Your task to perform on an android device: turn on bluetooth scan Image 0: 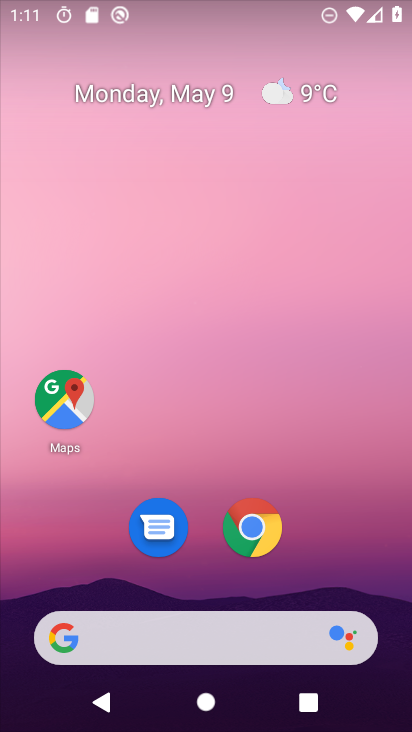
Step 0: drag from (156, 523) to (234, 2)
Your task to perform on an android device: turn on bluetooth scan Image 1: 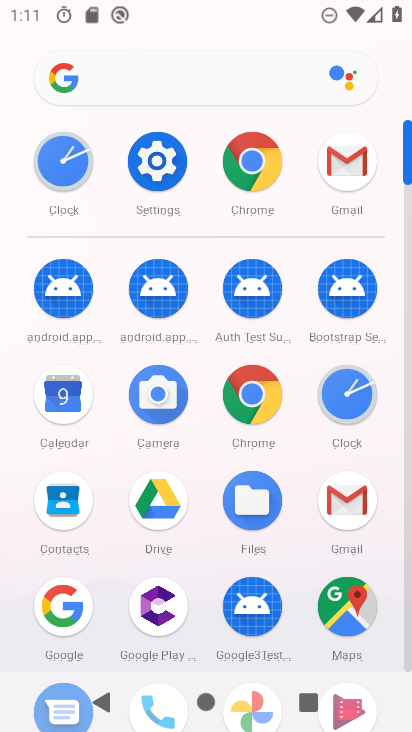
Step 1: click (156, 148)
Your task to perform on an android device: turn on bluetooth scan Image 2: 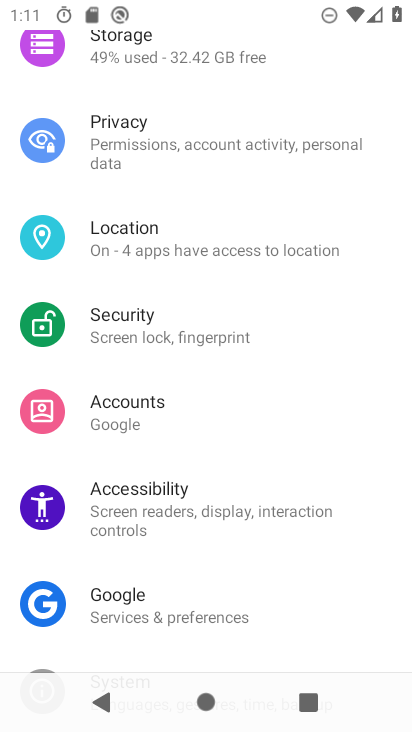
Step 2: drag from (211, 168) to (204, 675)
Your task to perform on an android device: turn on bluetooth scan Image 3: 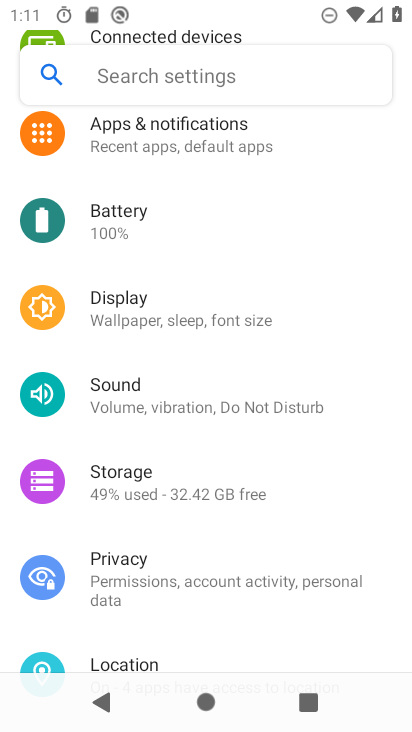
Step 3: drag from (212, 193) to (146, 600)
Your task to perform on an android device: turn on bluetooth scan Image 4: 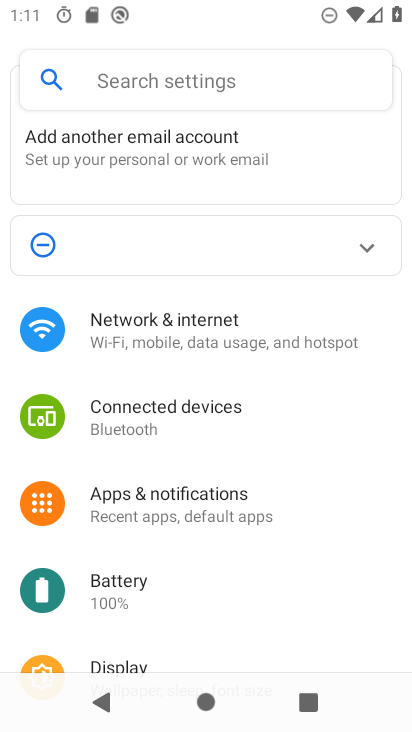
Step 4: drag from (151, 600) to (213, 179)
Your task to perform on an android device: turn on bluetooth scan Image 5: 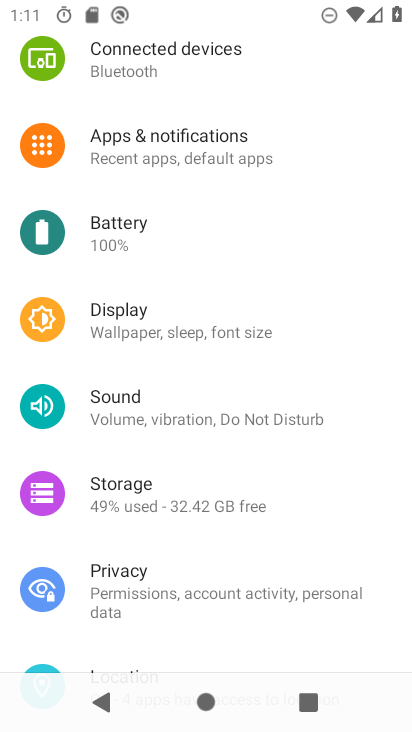
Step 5: drag from (225, 134) to (209, 282)
Your task to perform on an android device: turn on bluetooth scan Image 6: 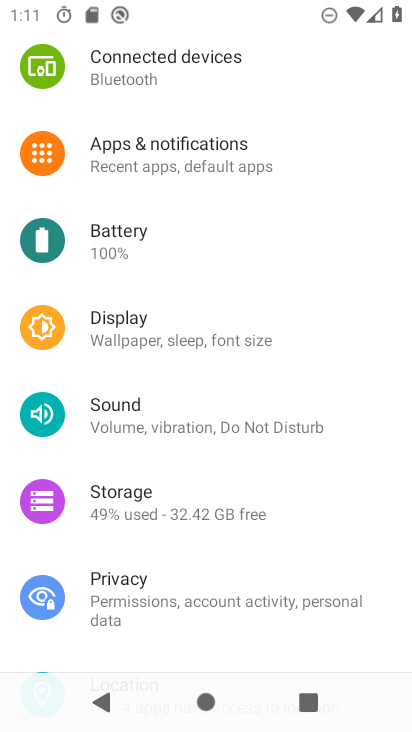
Step 6: drag from (182, 197) to (182, 500)
Your task to perform on an android device: turn on bluetooth scan Image 7: 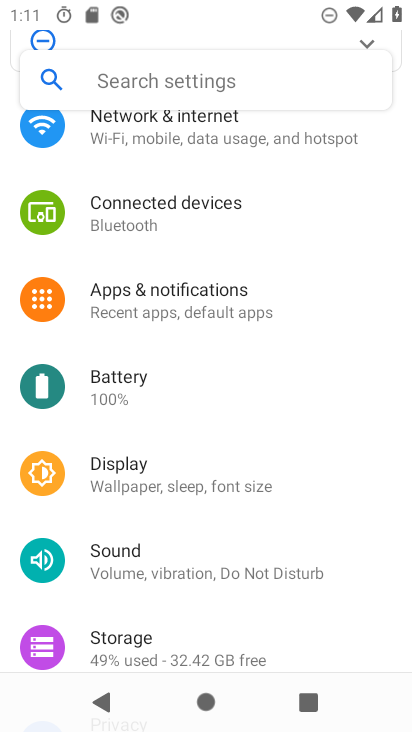
Step 7: click (128, 205)
Your task to perform on an android device: turn on bluetooth scan Image 8: 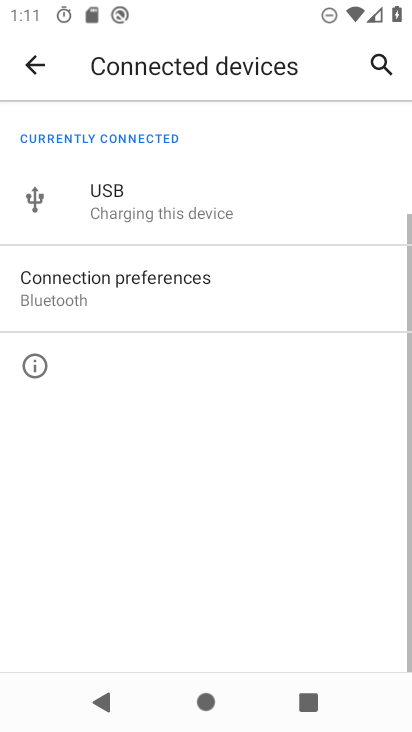
Step 8: click (118, 286)
Your task to perform on an android device: turn on bluetooth scan Image 9: 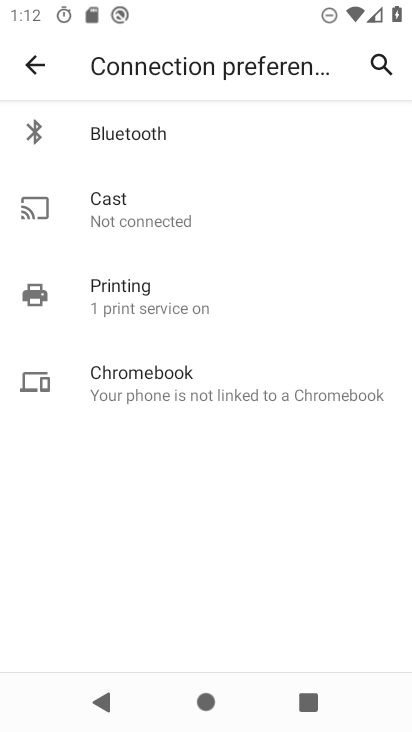
Step 9: click (131, 120)
Your task to perform on an android device: turn on bluetooth scan Image 10: 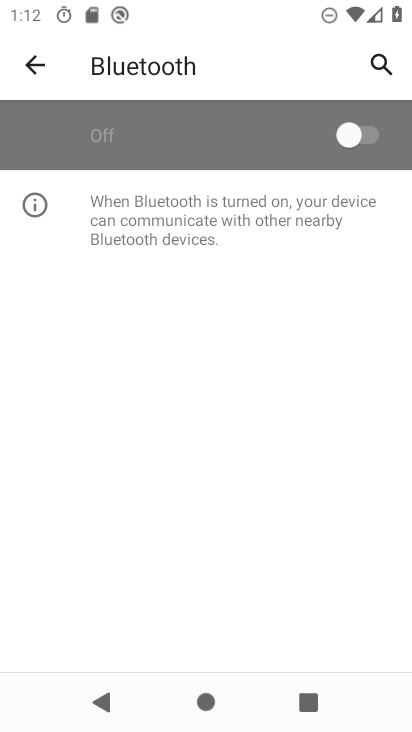
Step 10: click (359, 129)
Your task to perform on an android device: turn on bluetooth scan Image 11: 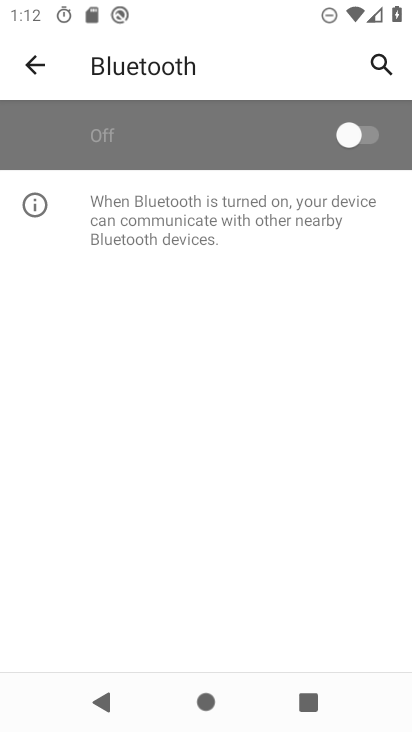
Step 11: task complete